Your task to perform on an android device: find photos in the google photos app Image 0: 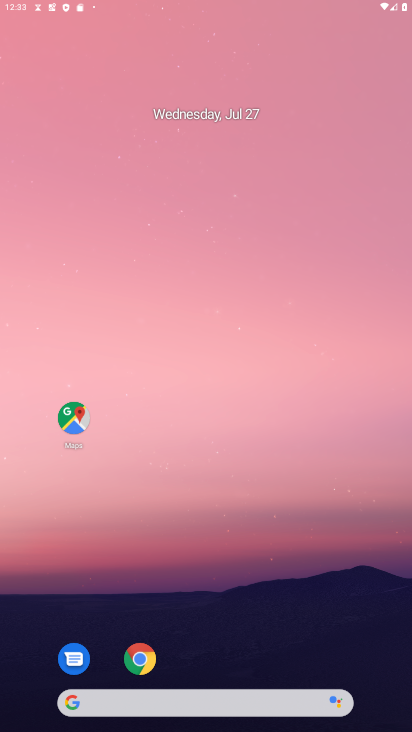
Step 0: press home button
Your task to perform on an android device: find photos in the google photos app Image 1: 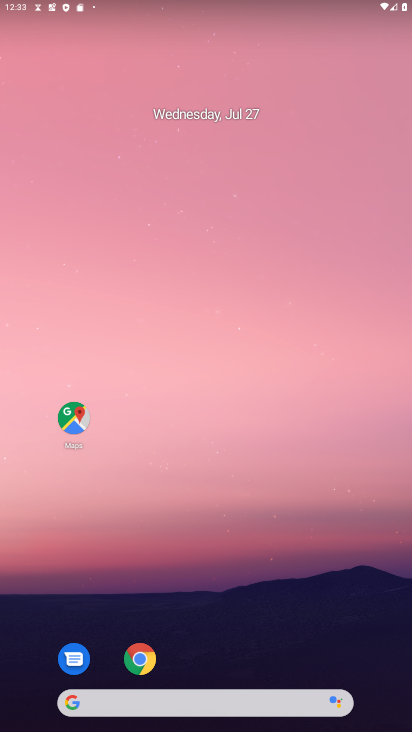
Step 1: drag from (210, 667) to (221, 42)
Your task to perform on an android device: find photos in the google photos app Image 2: 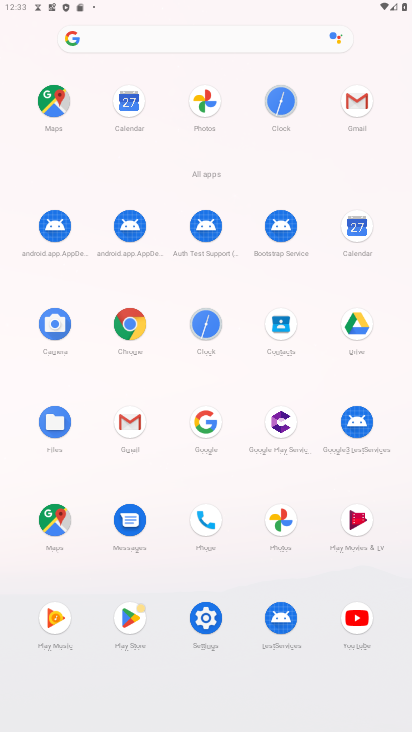
Step 2: click (277, 516)
Your task to perform on an android device: find photos in the google photos app Image 3: 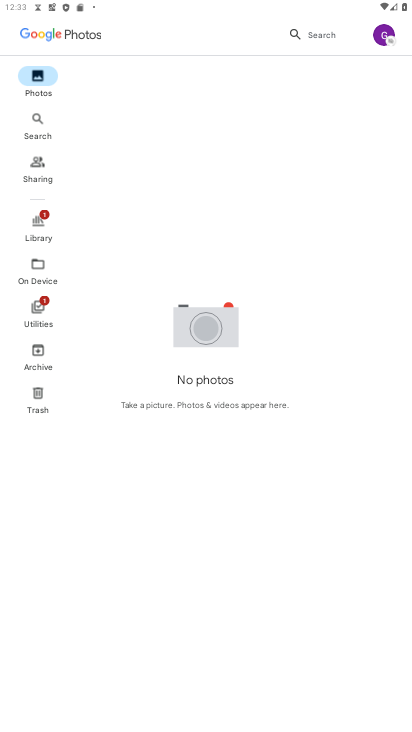
Step 3: task complete